Your task to perform on an android device: Open the phone app and click the voicemail tab. Image 0: 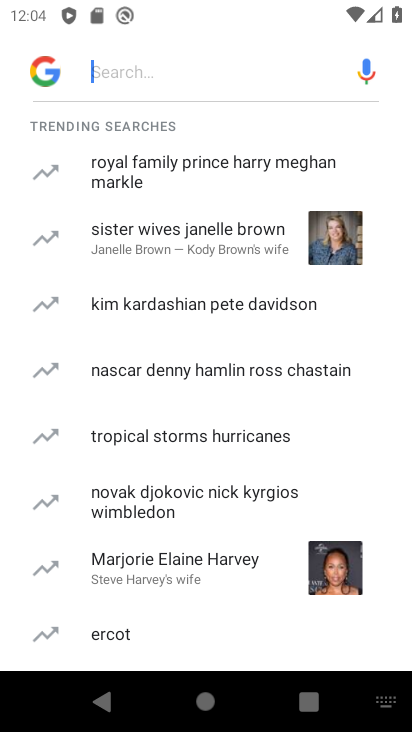
Step 0: press home button
Your task to perform on an android device: Open the phone app and click the voicemail tab. Image 1: 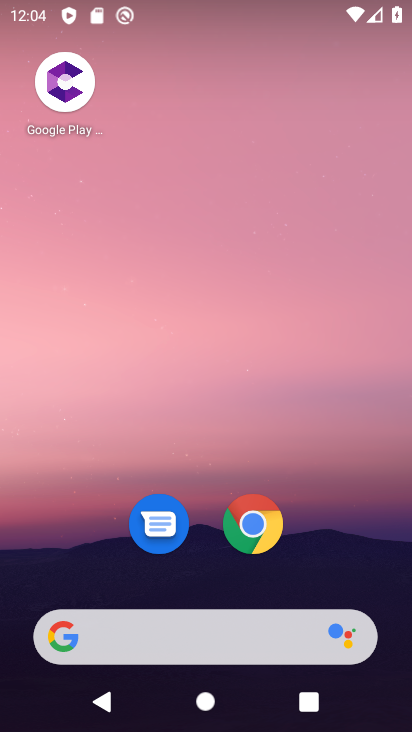
Step 1: drag from (333, 543) to (330, 43)
Your task to perform on an android device: Open the phone app and click the voicemail tab. Image 2: 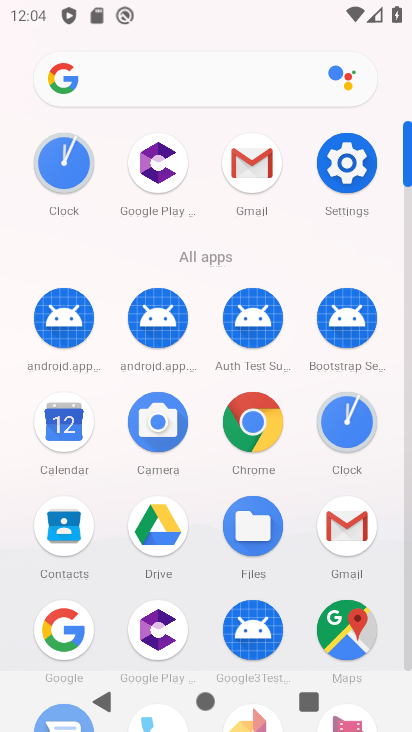
Step 2: drag from (207, 598) to (219, 290)
Your task to perform on an android device: Open the phone app and click the voicemail tab. Image 3: 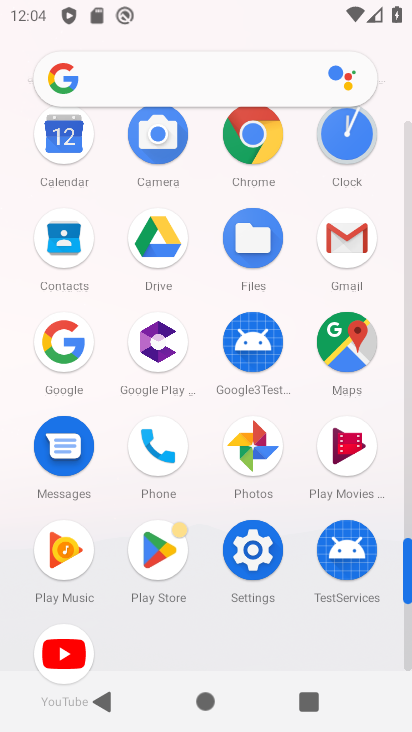
Step 3: click (166, 437)
Your task to perform on an android device: Open the phone app and click the voicemail tab. Image 4: 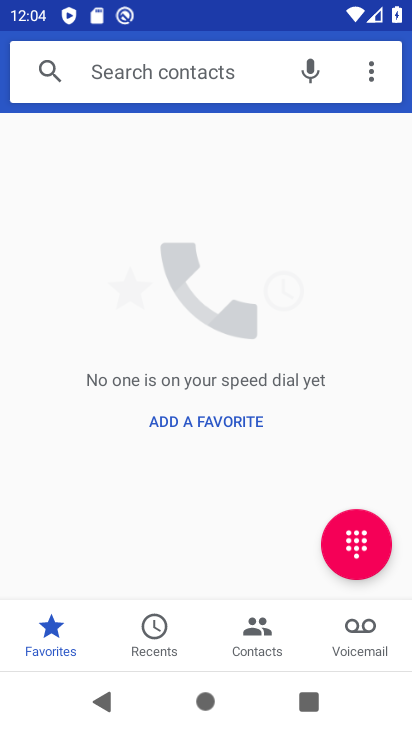
Step 4: click (347, 638)
Your task to perform on an android device: Open the phone app and click the voicemail tab. Image 5: 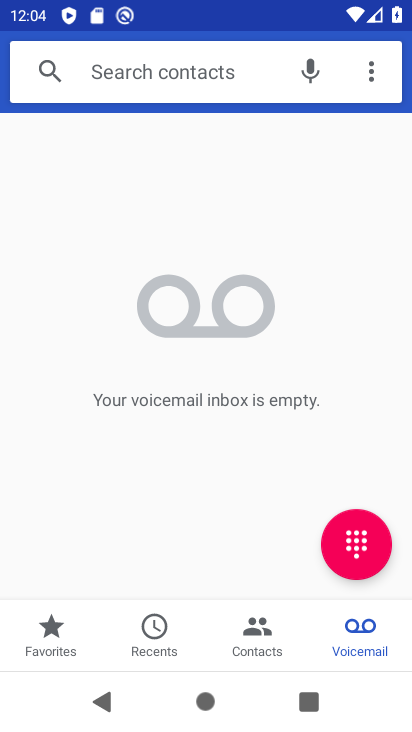
Step 5: task complete